Your task to perform on an android device: change your default location settings in chrome Image 0: 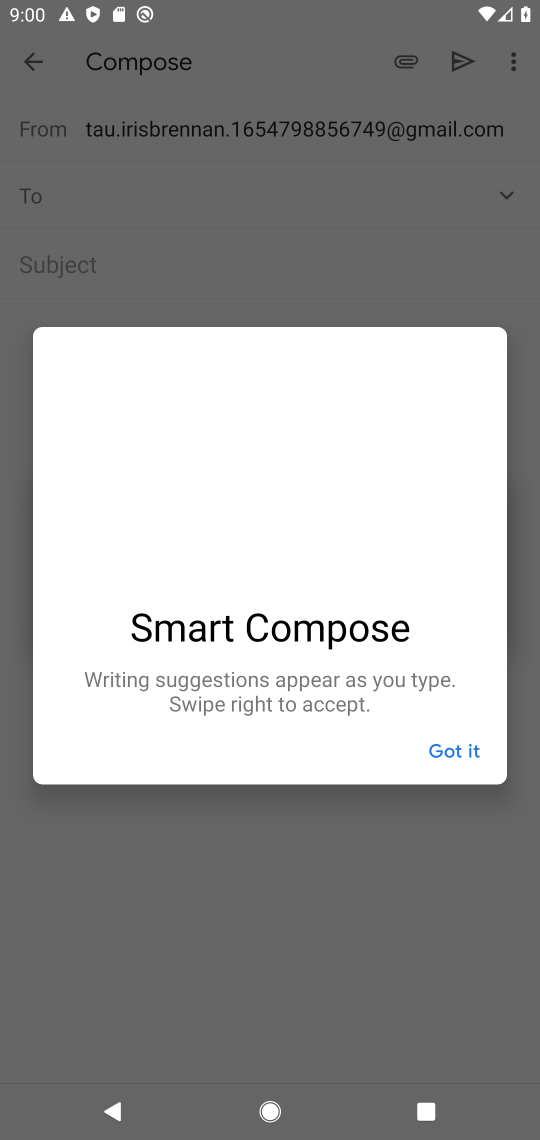
Step 0: press home button
Your task to perform on an android device: change your default location settings in chrome Image 1: 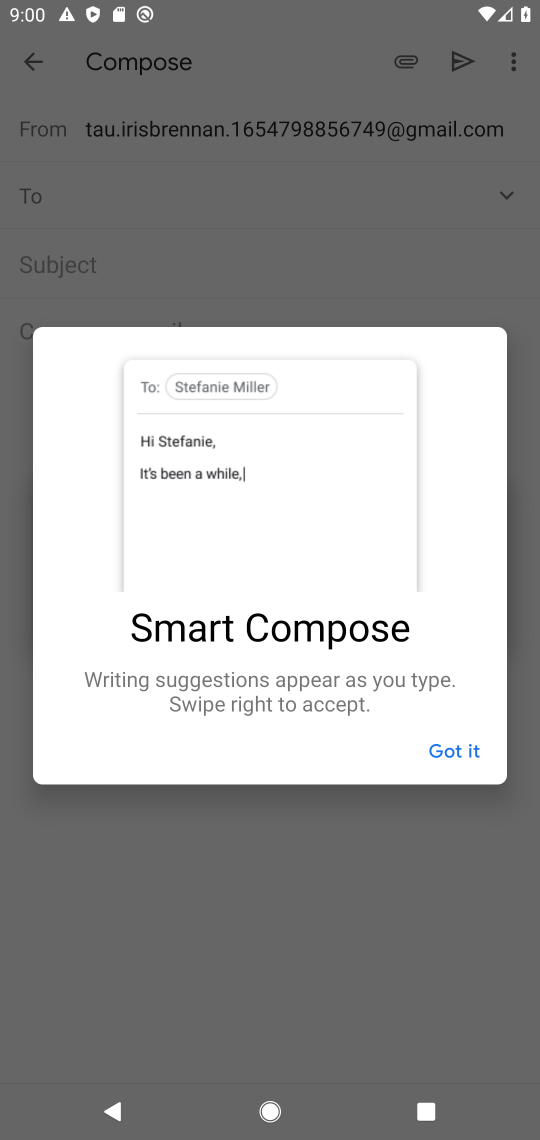
Step 1: press home button
Your task to perform on an android device: change your default location settings in chrome Image 2: 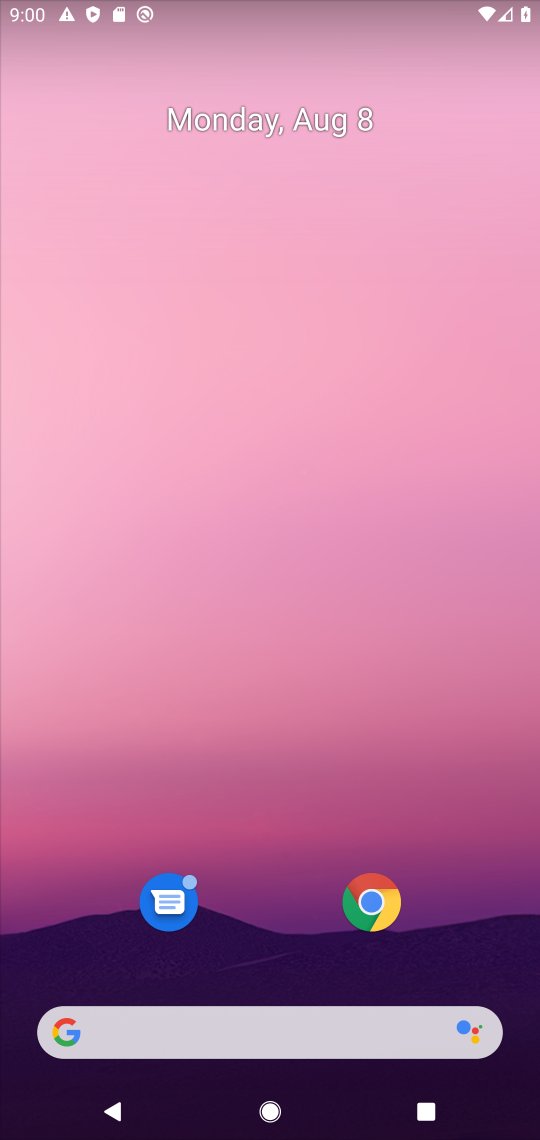
Step 2: drag from (296, 963) to (324, 176)
Your task to perform on an android device: change your default location settings in chrome Image 3: 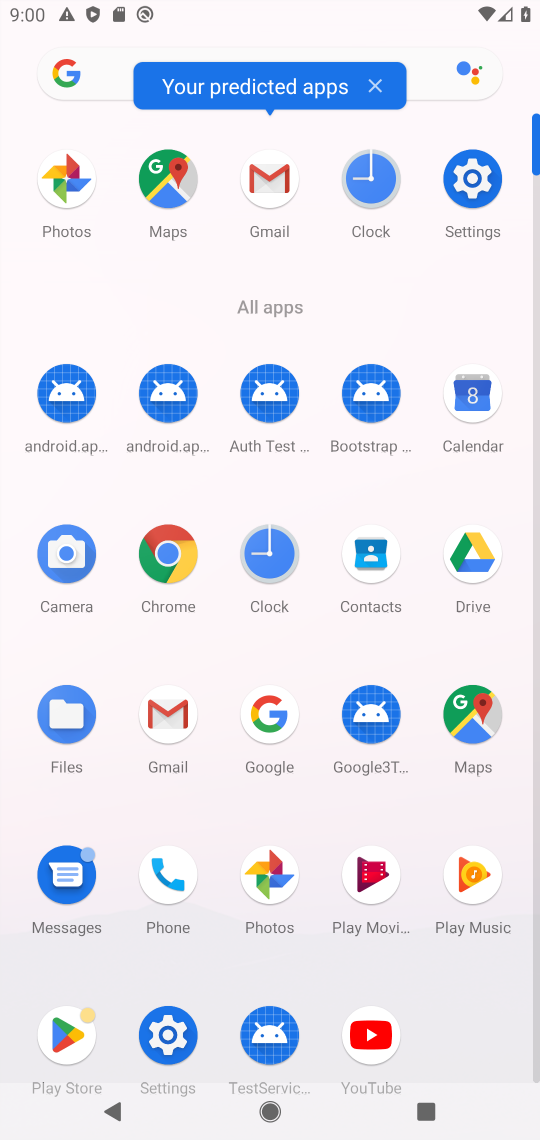
Step 3: click (182, 539)
Your task to perform on an android device: change your default location settings in chrome Image 4: 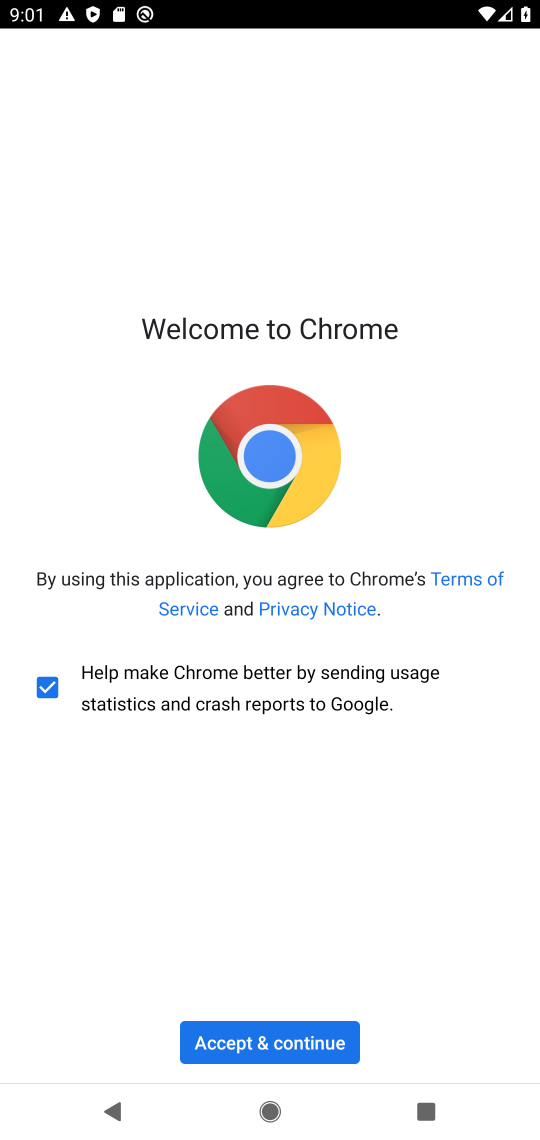
Step 4: click (225, 1016)
Your task to perform on an android device: change your default location settings in chrome Image 5: 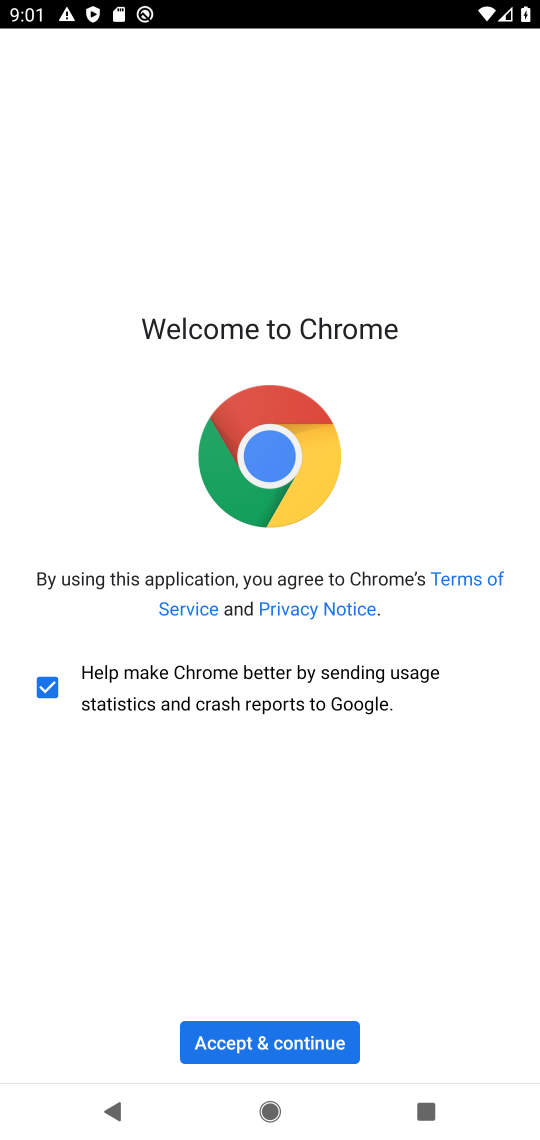
Step 5: click (251, 1043)
Your task to perform on an android device: change your default location settings in chrome Image 6: 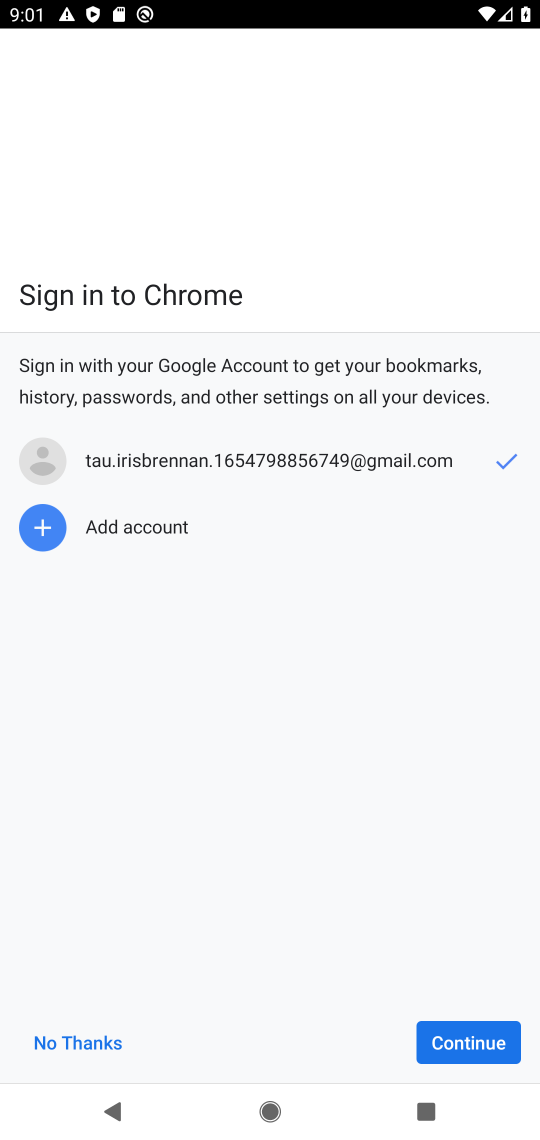
Step 6: click (444, 1053)
Your task to perform on an android device: change your default location settings in chrome Image 7: 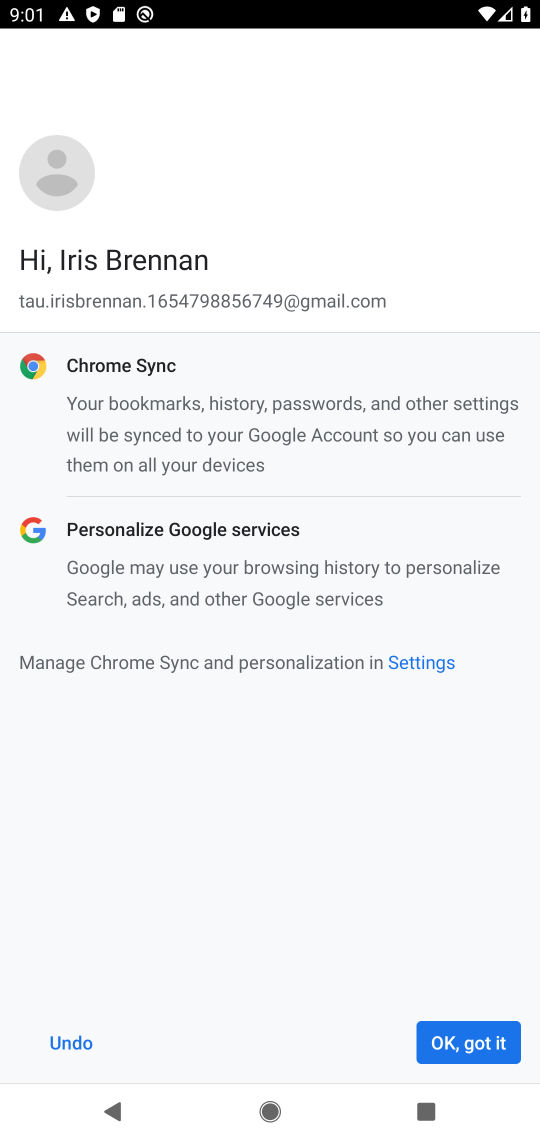
Step 7: click (444, 1053)
Your task to perform on an android device: change your default location settings in chrome Image 8: 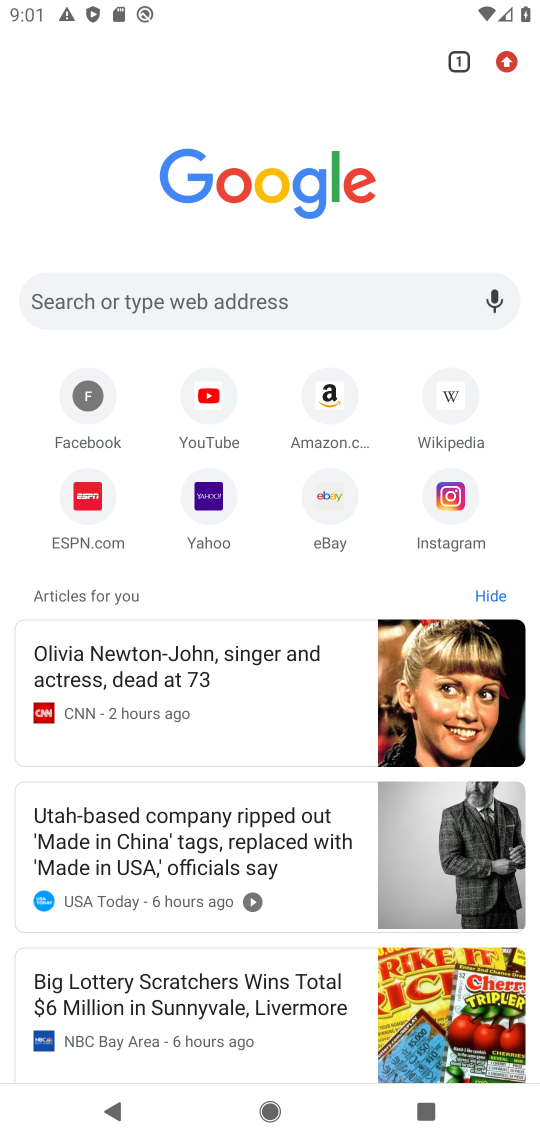
Step 8: click (510, 60)
Your task to perform on an android device: change your default location settings in chrome Image 9: 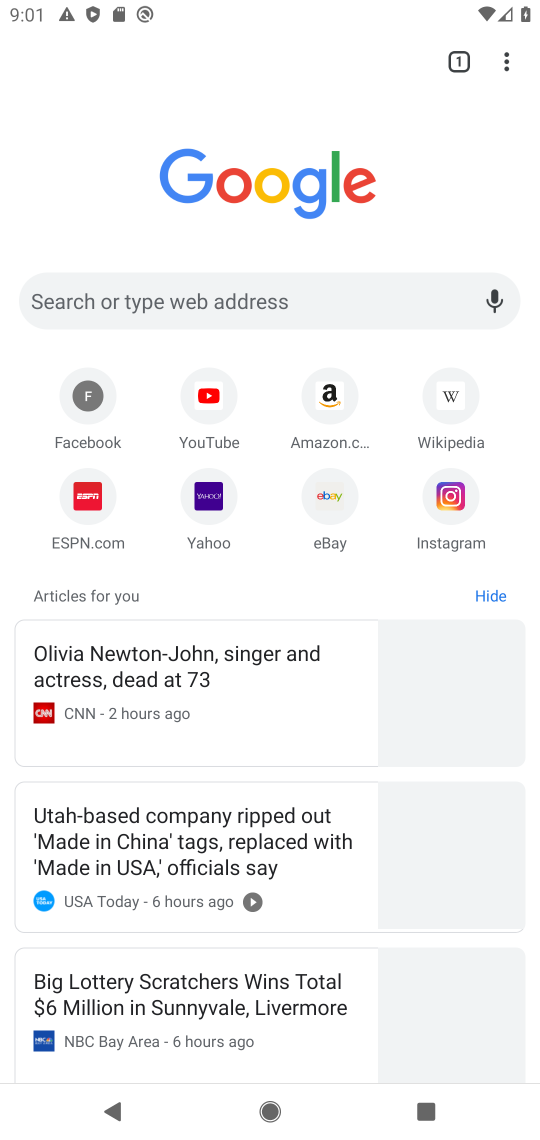
Step 9: click (510, 60)
Your task to perform on an android device: change your default location settings in chrome Image 10: 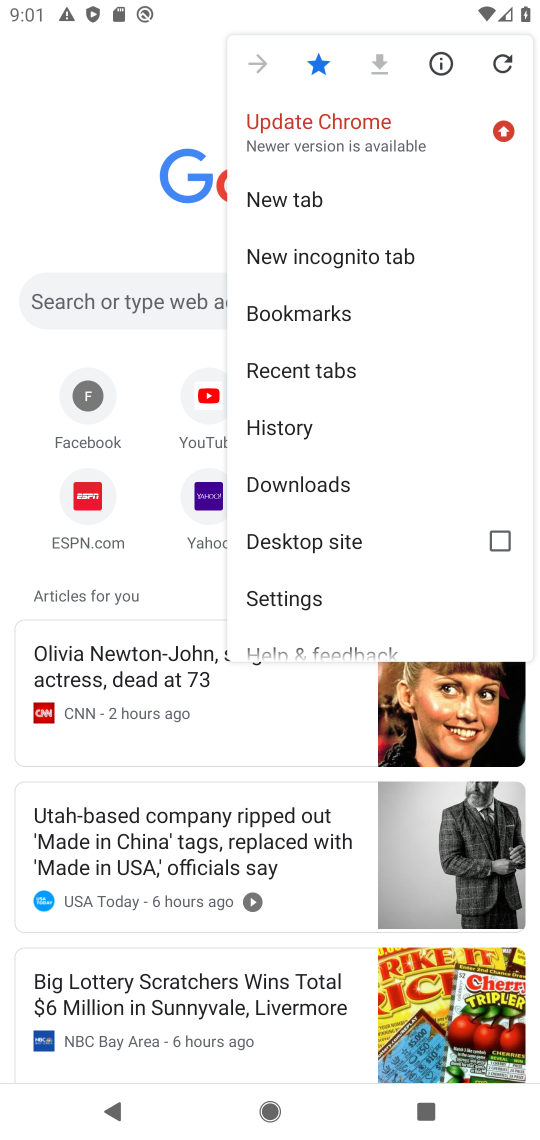
Step 10: click (288, 594)
Your task to perform on an android device: change your default location settings in chrome Image 11: 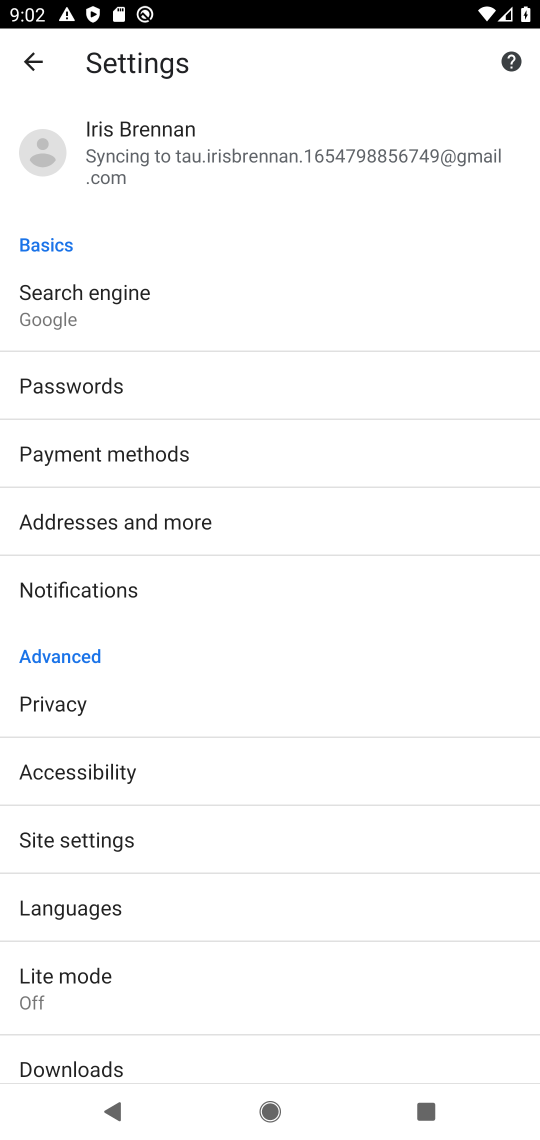
Step 11: click (114, 827)
Your task to perform on an android device: change your default location settings in chrome Image 12: 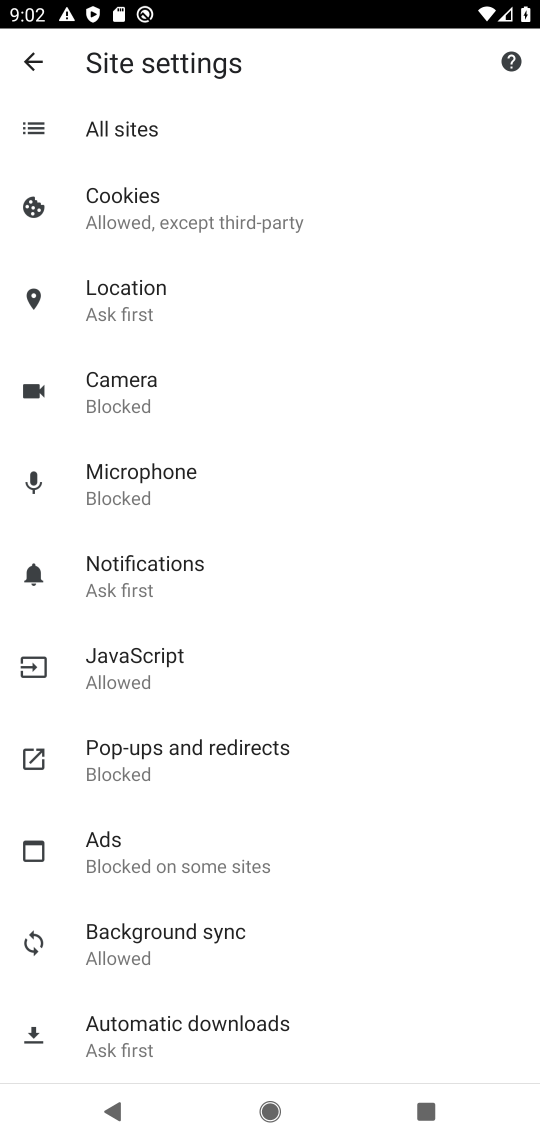
Step 12: click (108, 326)
Your task to perform on an android device: change your default location settings in chrome Image 13: 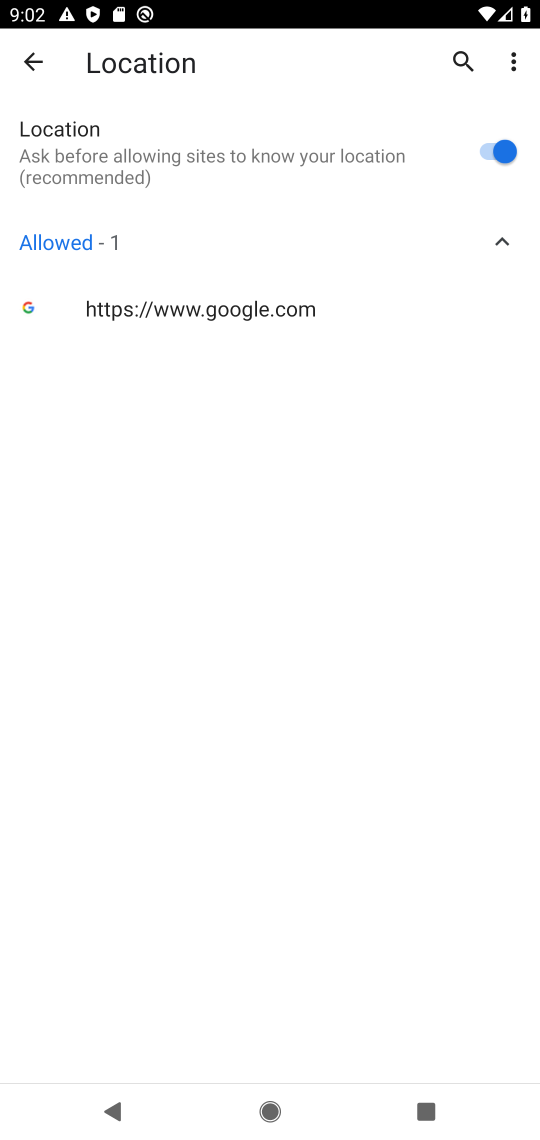
Step 13: click (488, 157)
Your task to perform on an android device: change your default location settings in chrome Image 14: 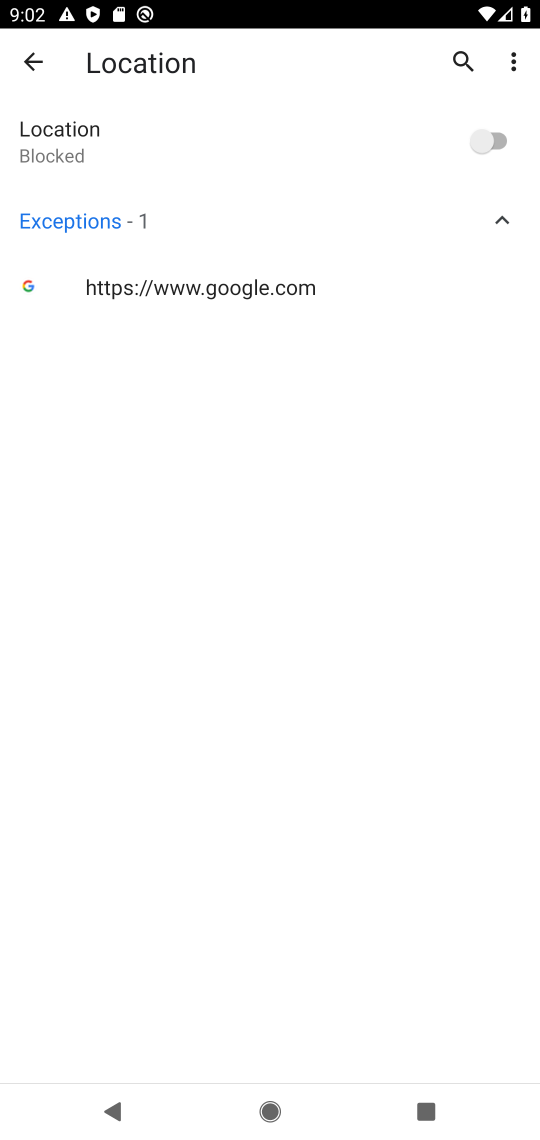
Step 14: task complete